Your task to perform on an android device: Go to notification settings Image 0: 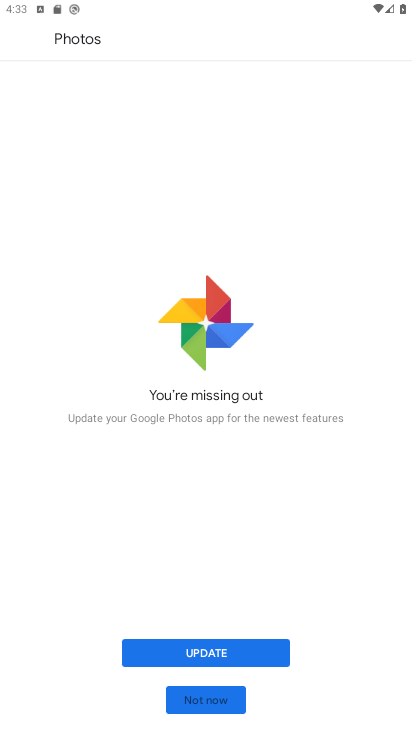
Step 0: press home button
Your task to perform on an android device: Go to notification settings Image 1: 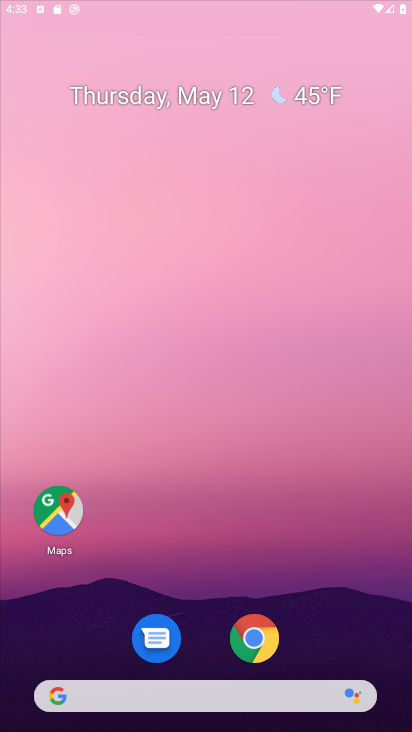
Step 1: drag from (285, 376) to (239, 97)
Your task to perform on an android device: Go to notification settings Image 2: 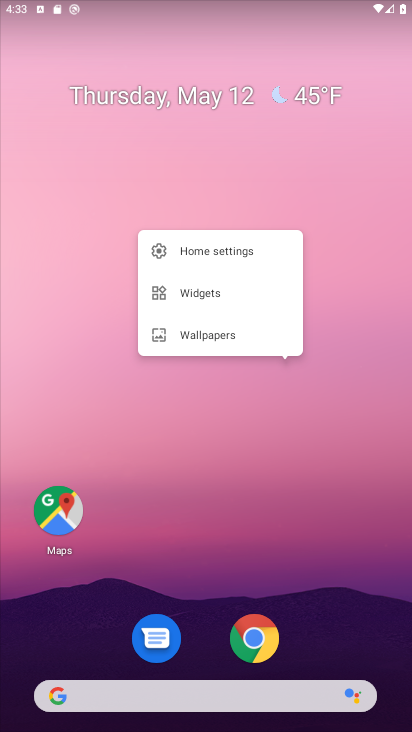
Step 2: drag from (299, 477) to (211, 21)
Your task to perform on an android device: Go to notification settings Image 3: 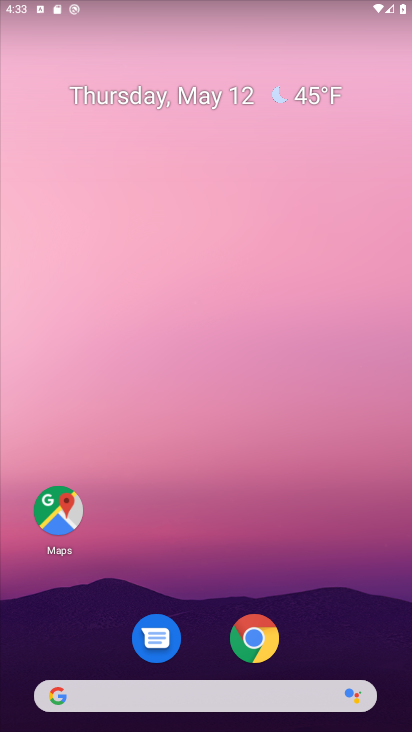
Step 3: drag from (274, 296) to (222, 20)
Your task to perform on an android device: Go to notification settings Image 4: 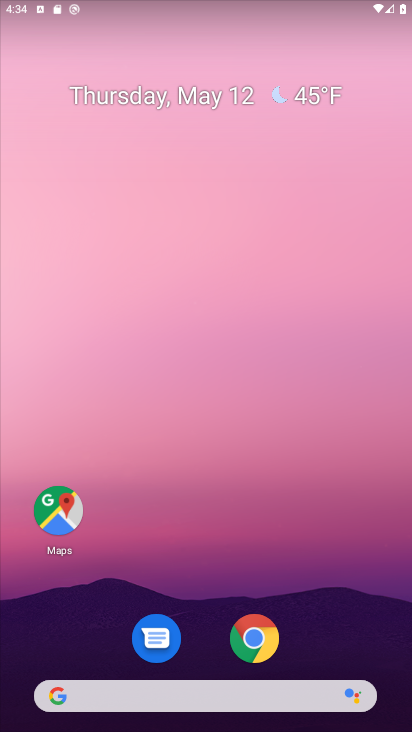
Step 4: drag from (290, 563) to (169, 69)
Your task to perform on an android device: Go to notification settings Image 5: 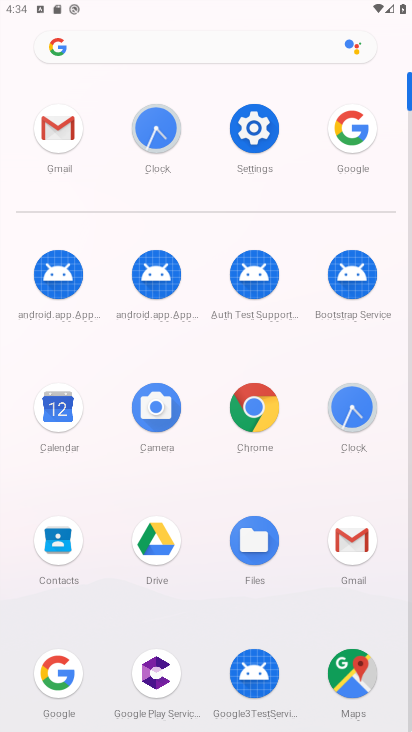
Step 5: click (256, 121)
Your task to perform on an android device: Go to notification settings Image 6: 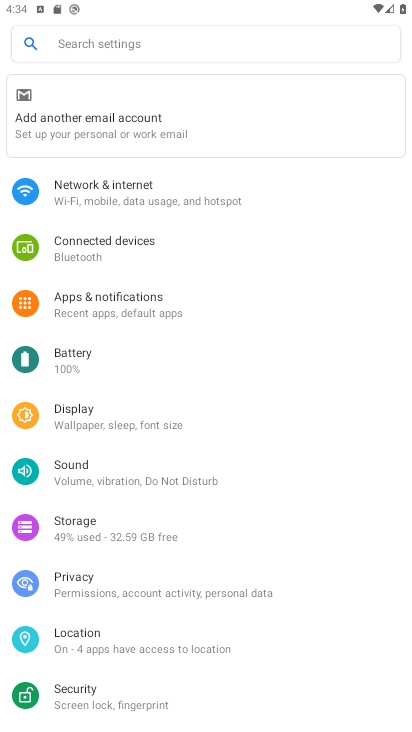
Step 6: click (181, 310)
Your task to perform on an android device: Go to notification settings Image 7: 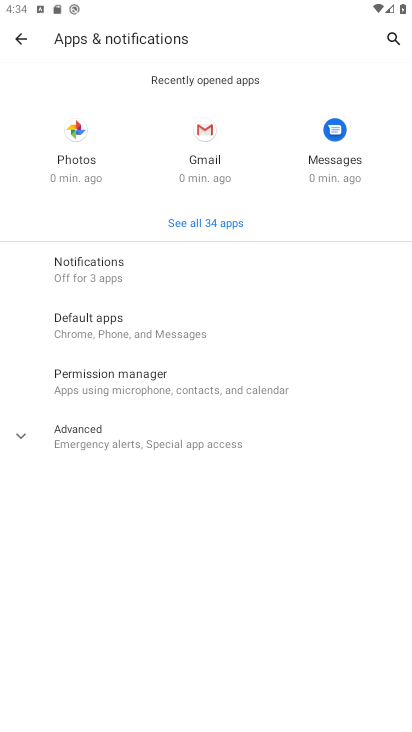
Step 7: task complete